Your task to perform on an android device: Open the calendar app Image 0: 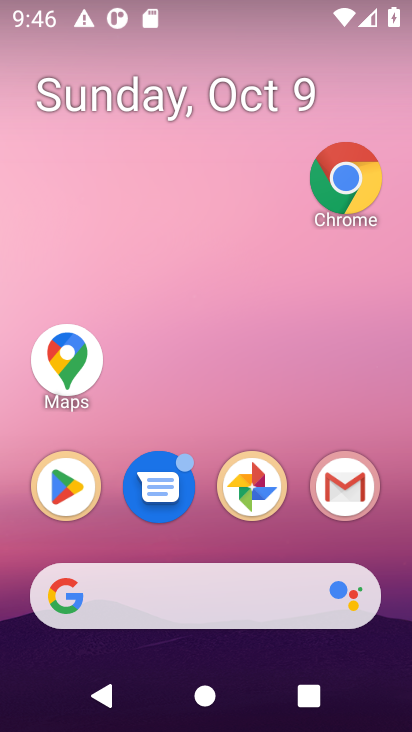
Step 0: drag from (241, 592) to (265, 310)
Your task to perform on an android device: Open the calendar app Image 1: 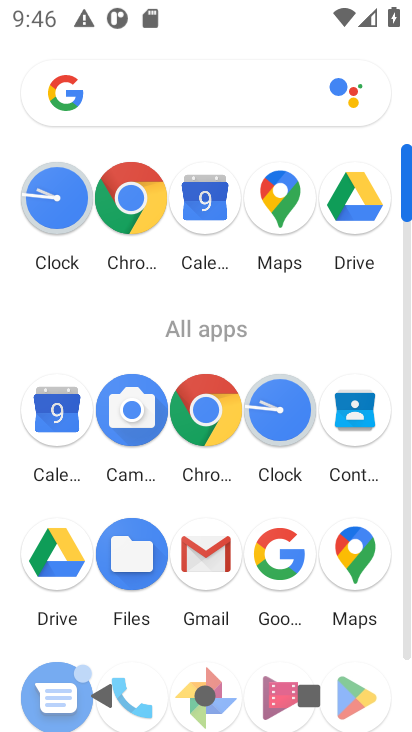
Step 1: drag from (250, 459) to (289, 291)
Your task to perform on an android device: Open the calendar app Image 2: 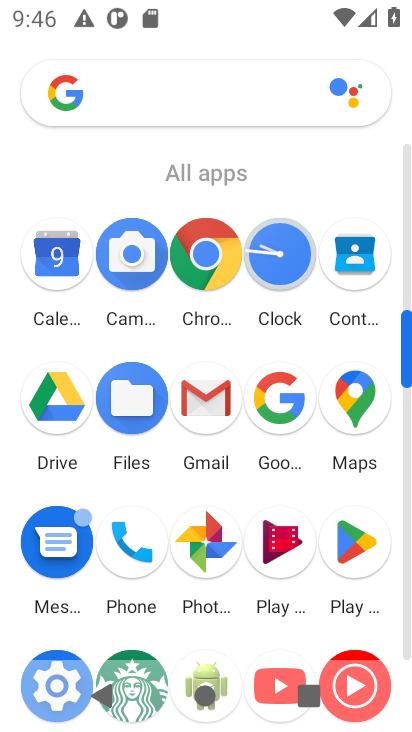
Step 2: drag from (265, 510) to (267, 289)
Your task to perform on an android device: Open the calendar app Image 3: 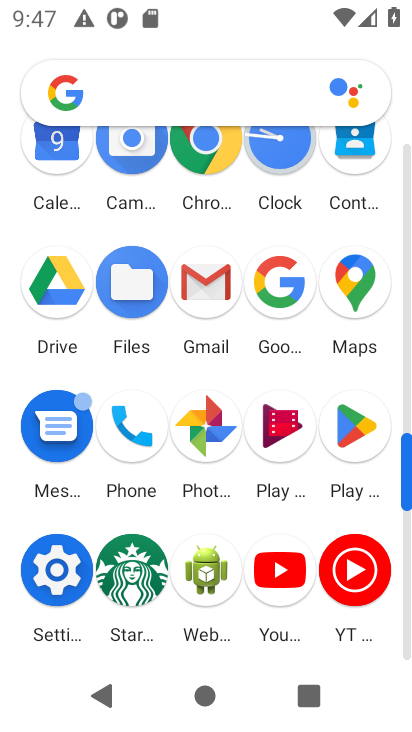
Step 3: drag from (247, 281) to (248, 451)
Your task to perform on an android device: Open the calendar app Image 4: 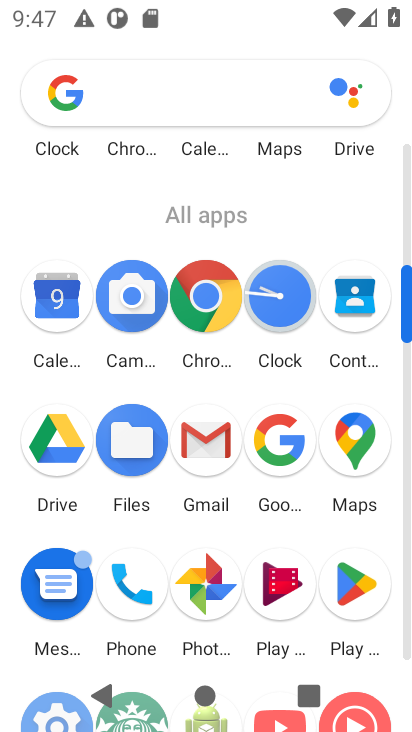
Step 4: click (73, 309)
Your task to perform on an android device: Open the calendar app Image 5: 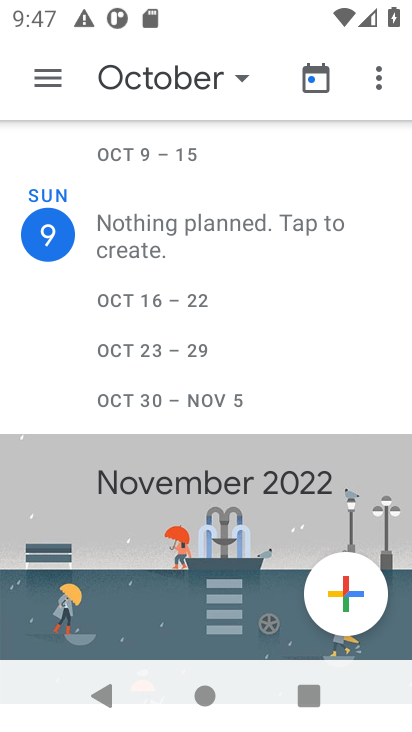
Step 5: task complete